Your task to perform on an android device: open app "Spotify: Music and Podcasts" (install if not already installed) Image 0: 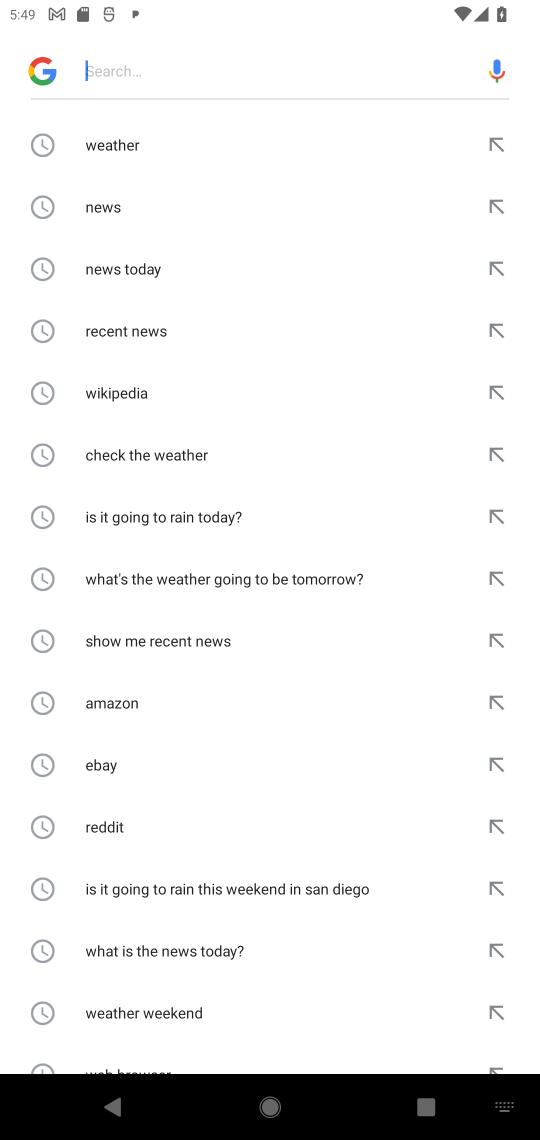
Step 0: press home button
Your task to perform on an android device: open app "Spotify: Music and Podcasts" (install if not already installed) Image 1: 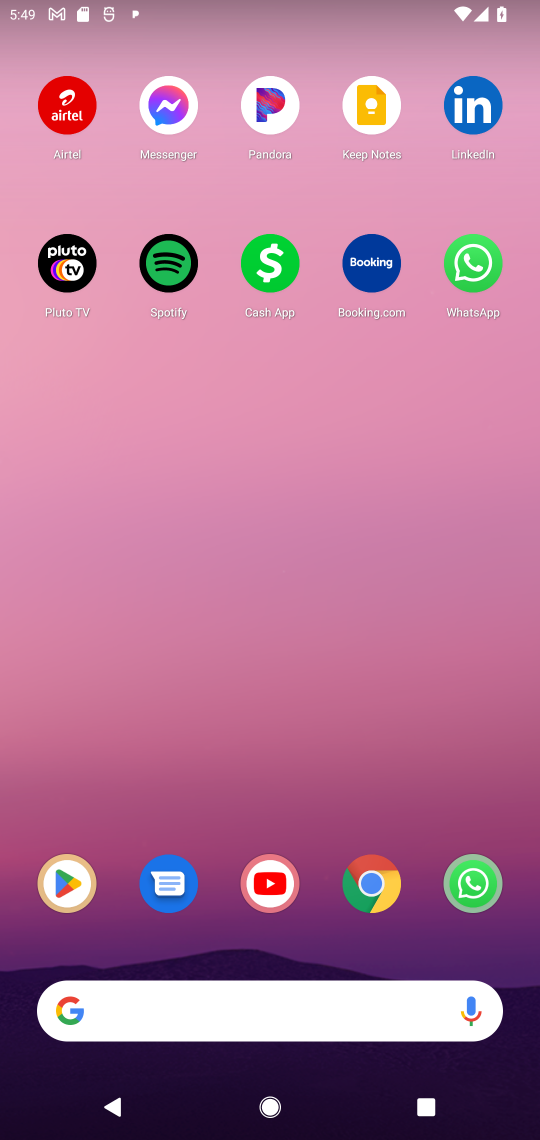
Step 1: drag from (222, 882) to (297, 157)
Your task to perform on an android device: open app "Spotify: Music and Podcasts" (install if not already installed) Image 2: 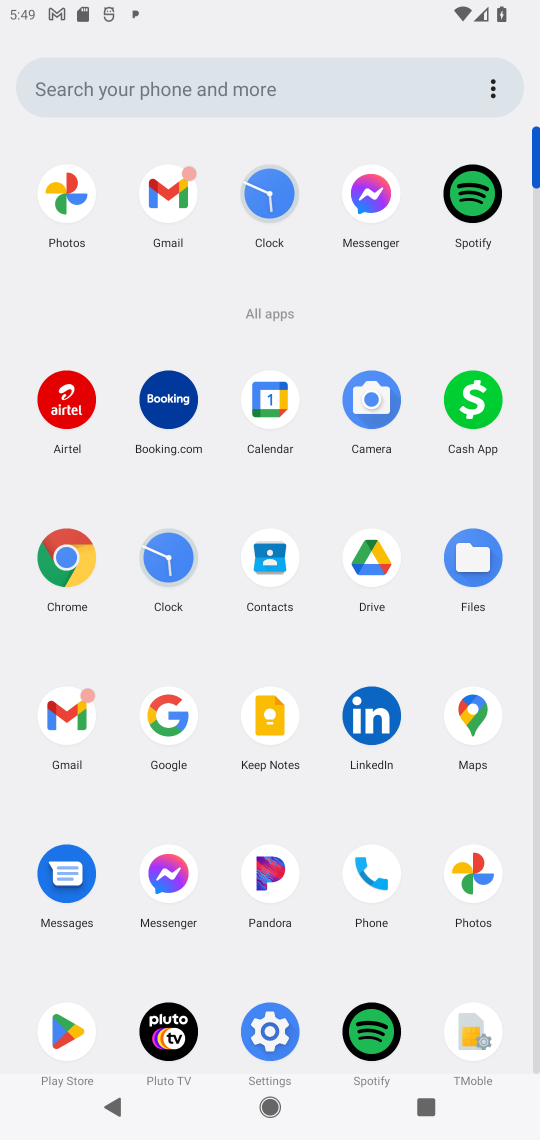
Step 2: click (79, 1027)
Your task to perform on an android device: open app "Spotify: Music and Podcasts" (install if not already installed) Image 3: 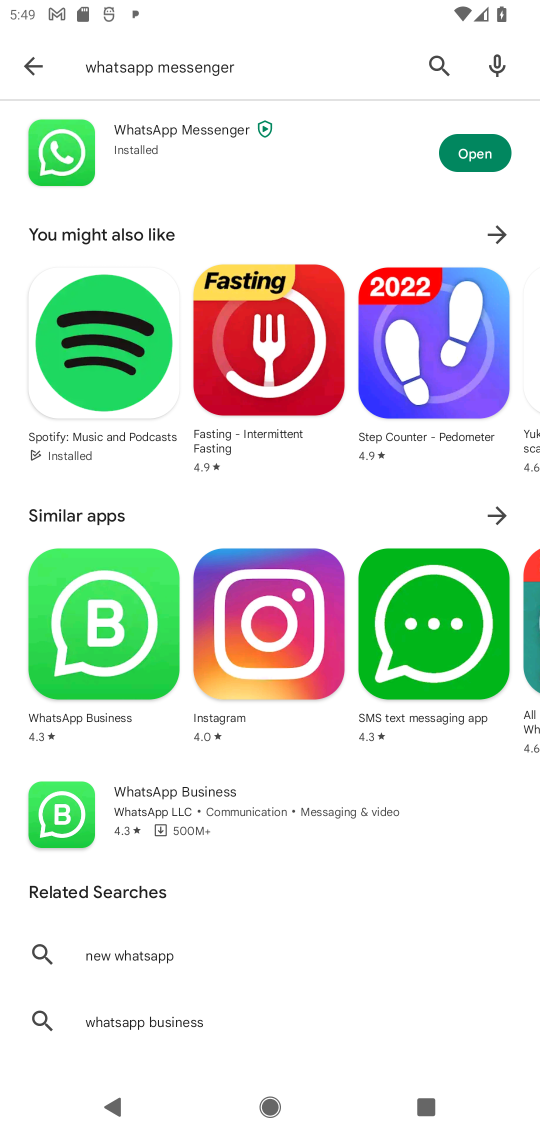
Step 3: click (41, 115)
Your task to perform on an android device: open app "Spotify: Music and Podcasts" (install if not already installed) Image 4: 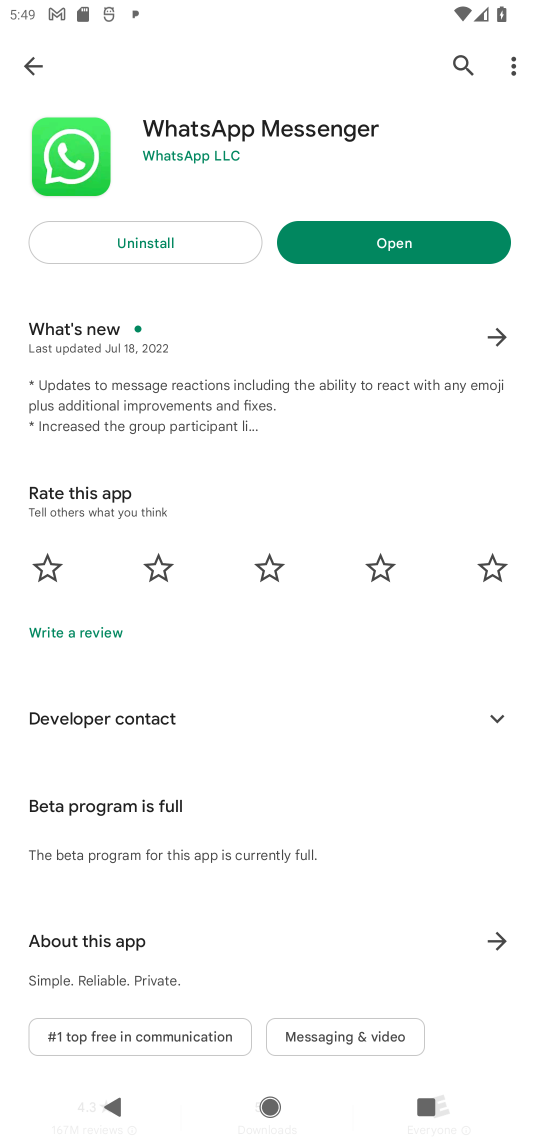
Step 4: click (28, 51)
Your task to perform on an android device: open app "Spotify: Music and Podcasts" (install if not already installed) Image 5: 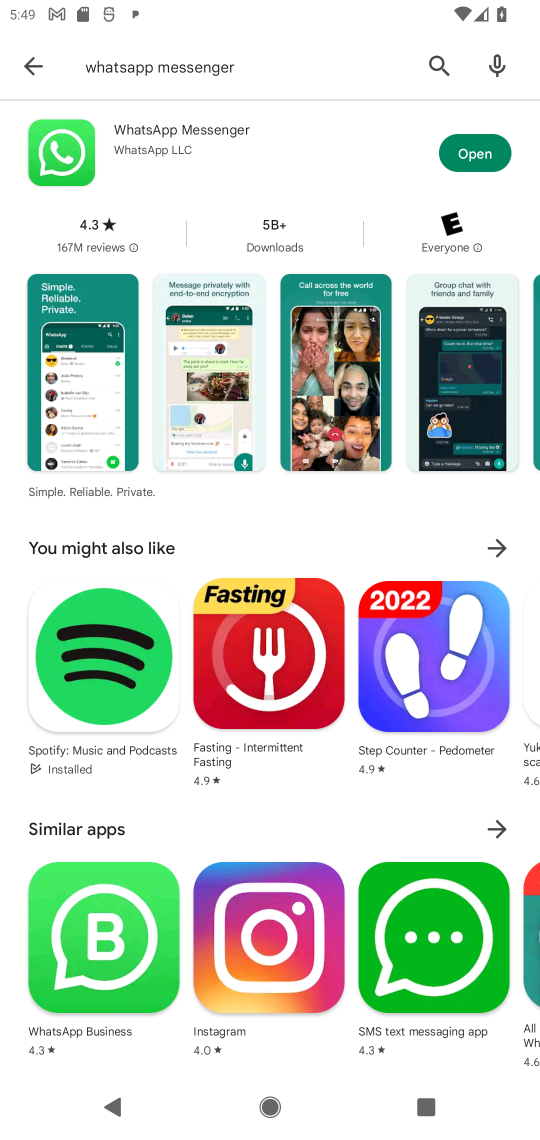
Step 5: click (25, 69)
Your task to perform on an android device: open app "Spotify: Music and Podcasts" (install if not already installed) Image 6: 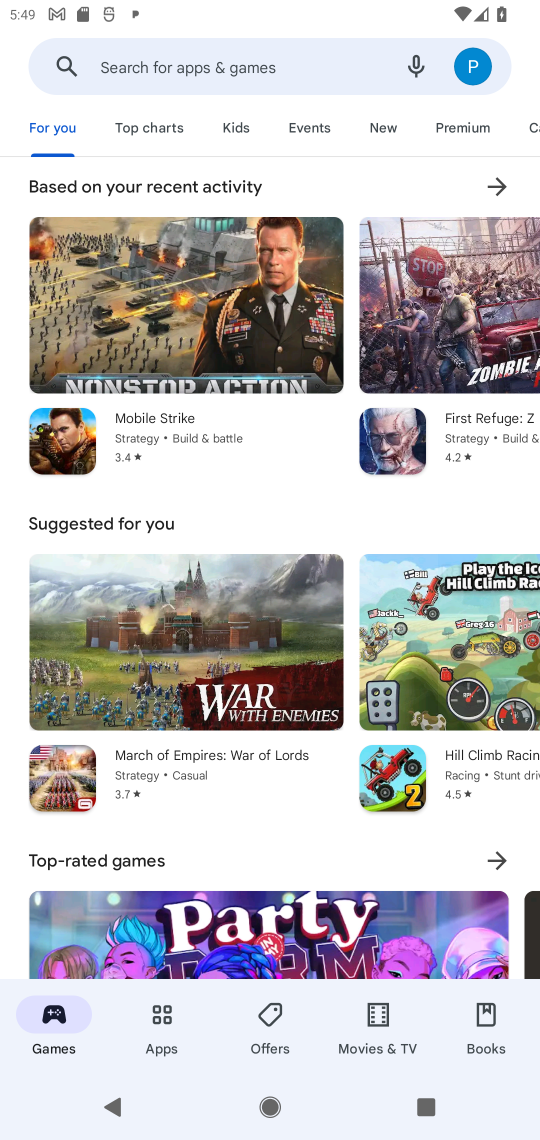
Step 6: click (147, 65)
Your task to perform on an android device: open app "Spotify: Music and Podcasts" (install if not already installed) Image 7: 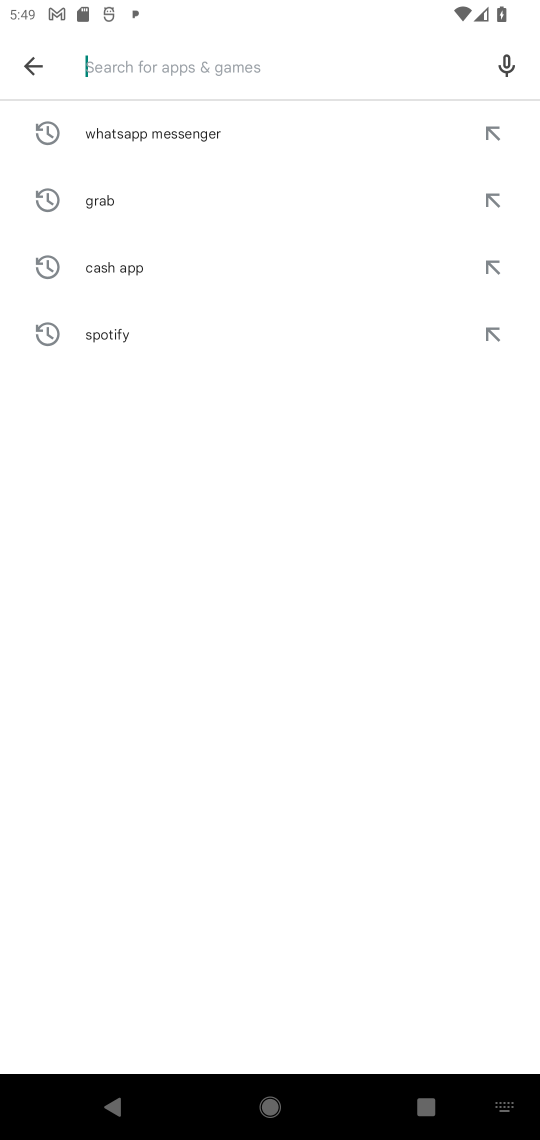
Step 7: type "Spotify"
Your task to perform on an android device: open app "Spotify: Music and Podcasts" (install if not already installed) Image 8: 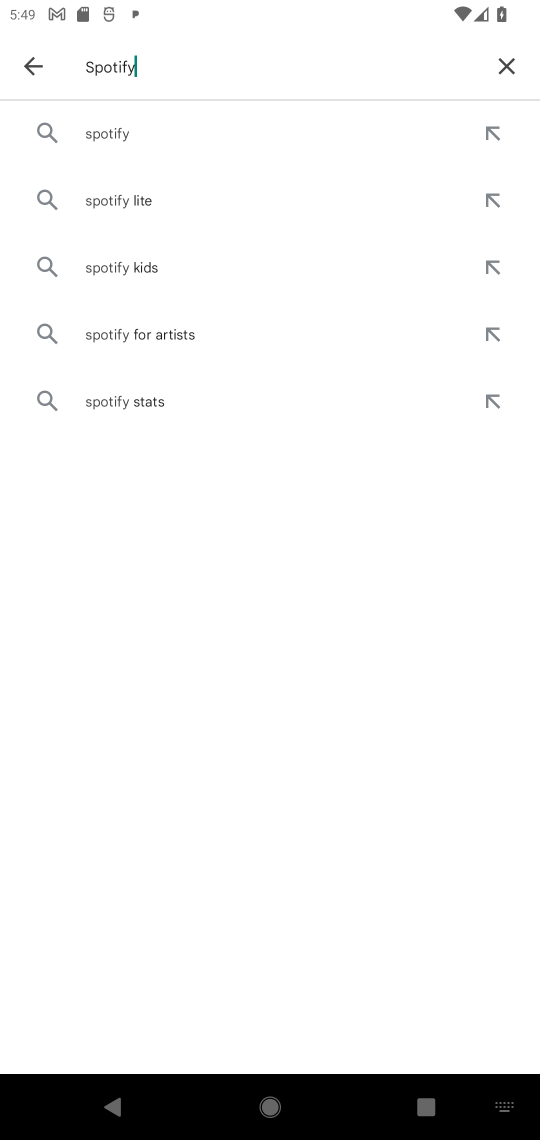
Step 8: click (94, 133)
Your task to perform on an android device: open app "Spotify: Music and Podcasts" (install if not already installed) Image 9: 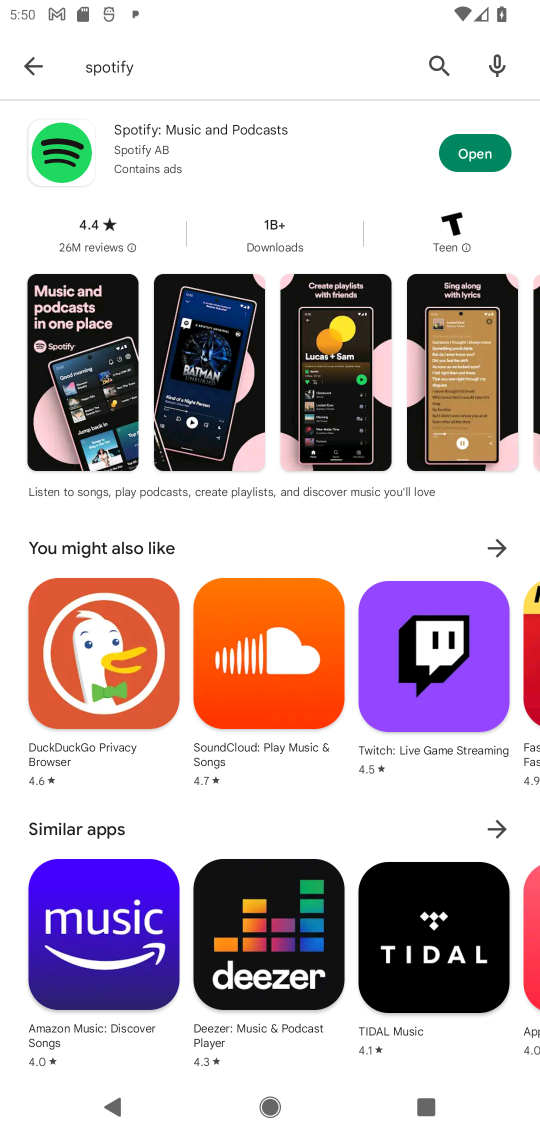
Step 9: click (471, 142)
Your task to perform on an android device: open app "Spotify: Music and Podcasts" (install if not already installed) Image 10: 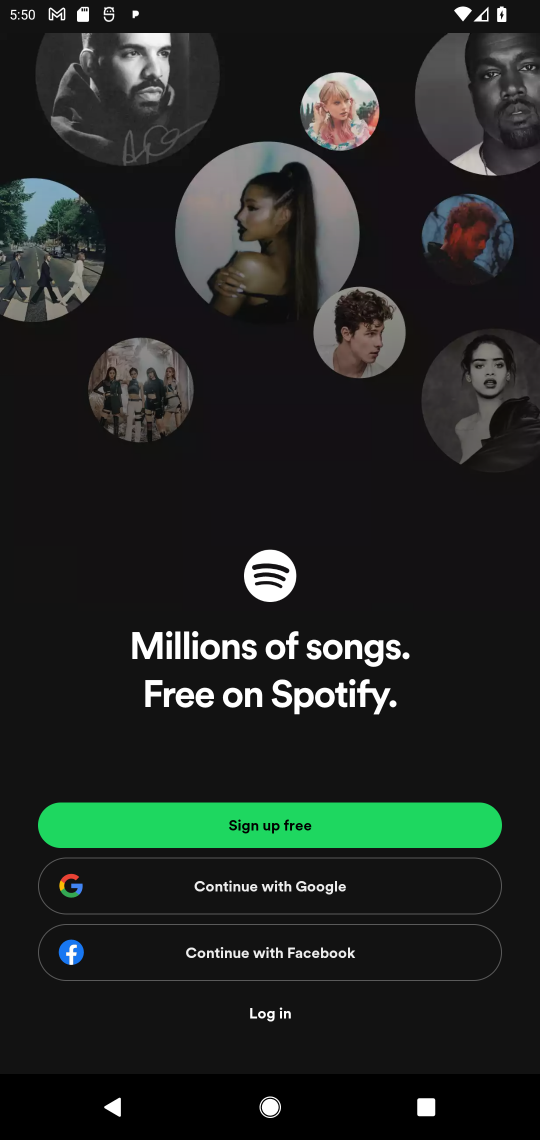
Step 10: task complete